Your task to perform on an android device: Open the Play Movies app and select the watchlist tab. Image 0: 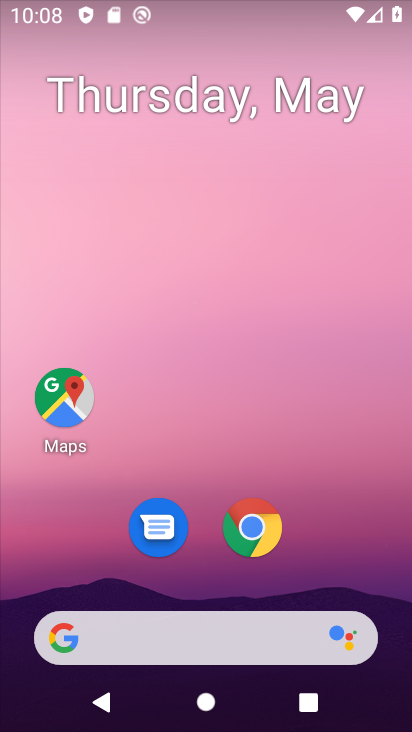
Step 0: drag from (309, 579) to (313, 140)
Your task to perform on an android device: Open the Play Movies app and select the watchlist tab. Image 1: 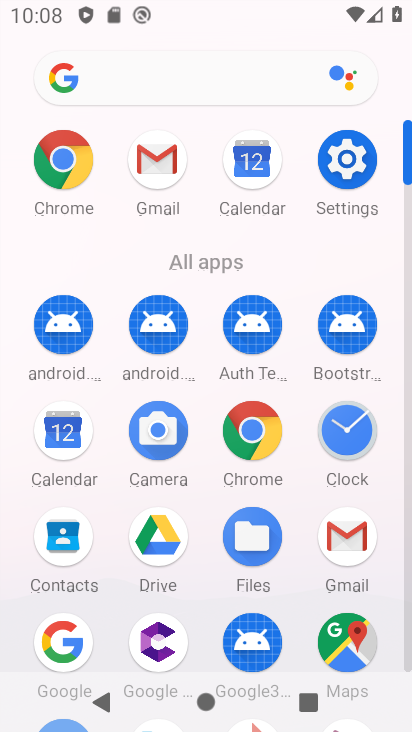
Step 1: click (306, 269)
Your task to perform on an android device: Open the Play Movies app and select the watchlist tab. Image 2: 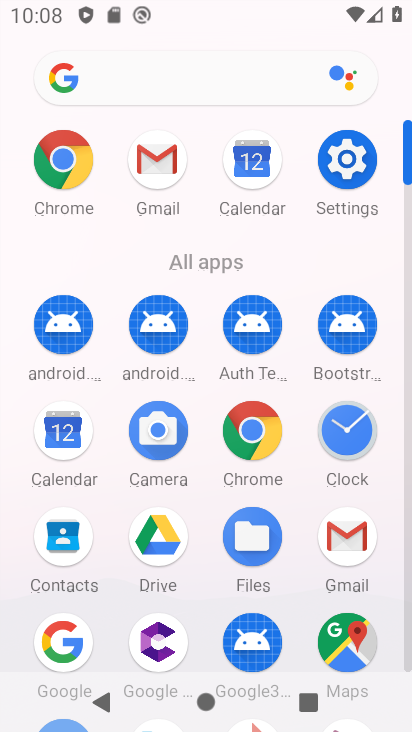
Step 2: drag from (208, 601) to (223, 387)
Your task to perform on an android device: Open the Play Movies app and select the watchlist tab. Image 3: 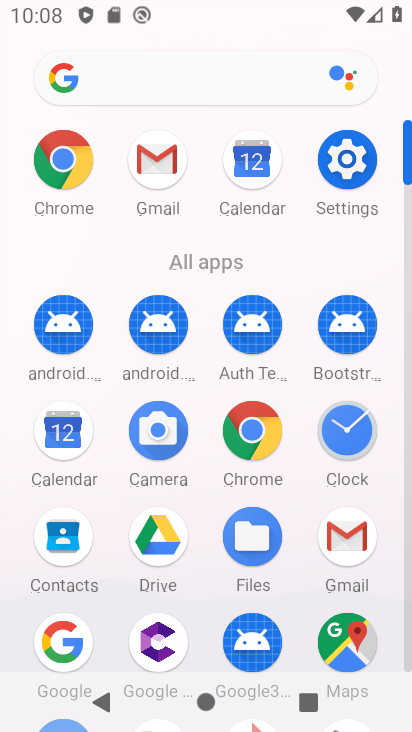
Step 3: drag from (219, 567) to (335, 291)
Your task to perform on an android device: Open the Play Movies app and select the watchlist tab. Image 4: 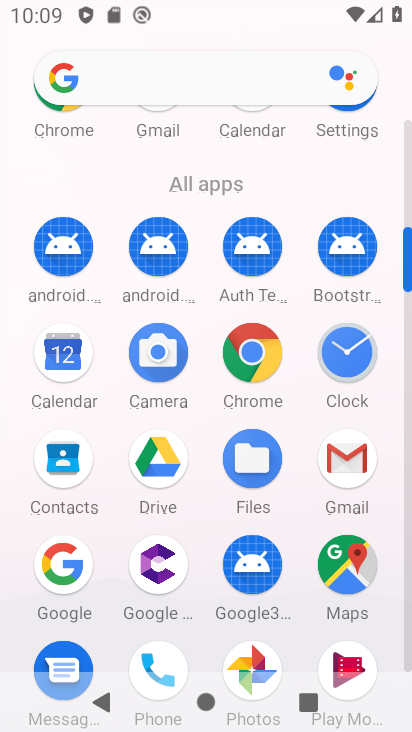
Step 4: click (346, 665)
Your task to perform on an android device: Open the Play Movies app and select the watchlist tab. Image 5: 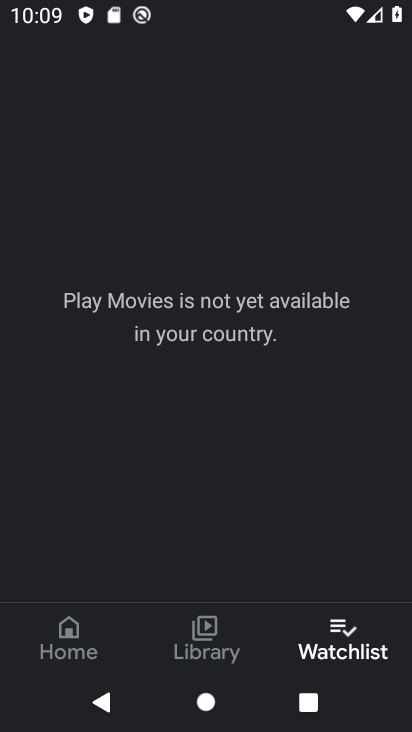
Step 5: click (335, 647)
Your task to perform on an android device: Open the Play Movies app and select the watchlist tab. Image 6: 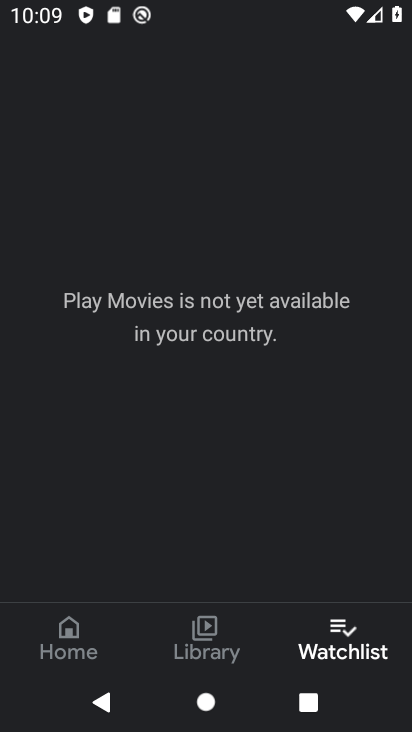
Step 6: task complete